Your task to perform on an android device: Go to settings Image 0: 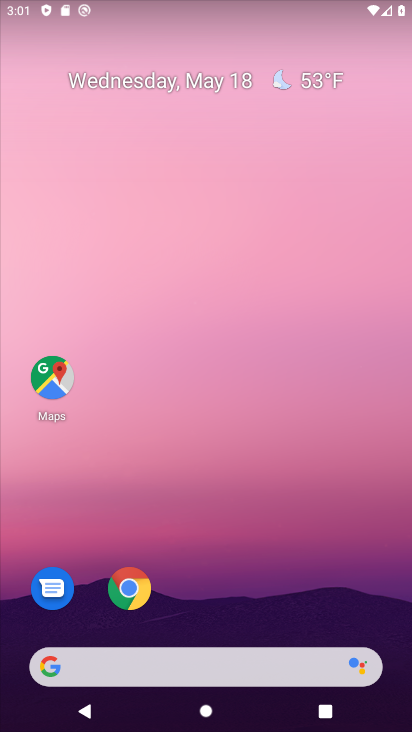
Step 0: press home button
Your task to perform on an android device: Go to settings Image 1: 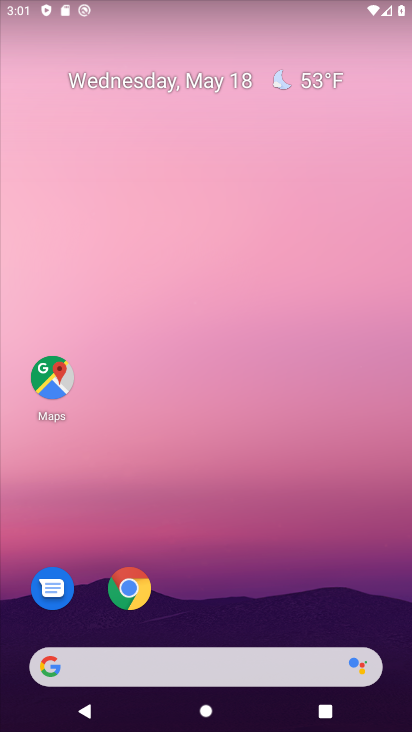
Step 1: drag from (207, 618) to (183, 80)
Your task to perform on an android device: Go to settings Image 2: 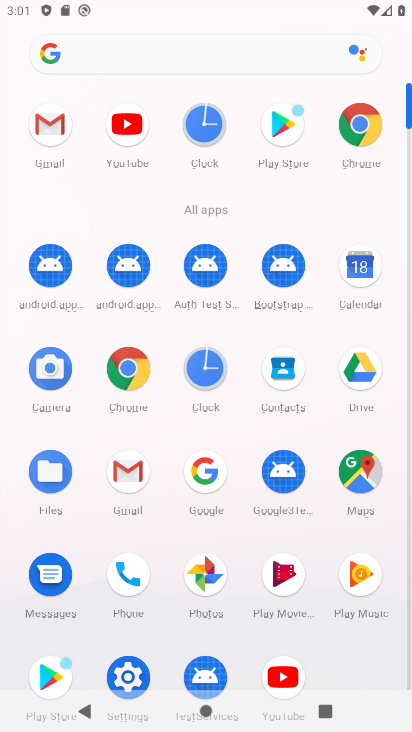
Step 2: click (123, 686)
Your task to perform on an android device: Go to settings Image 3: 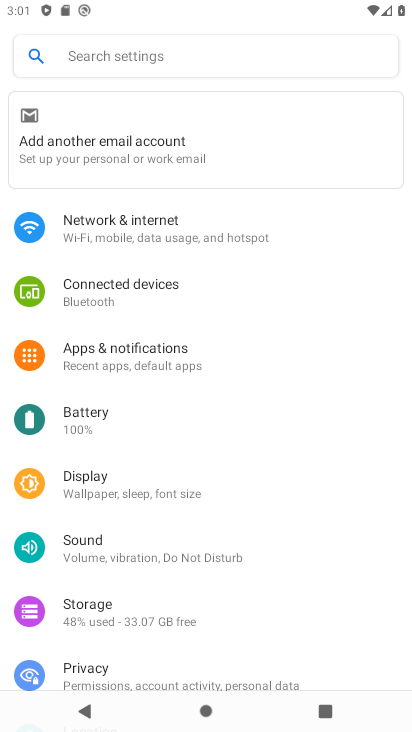
Step 3: task complete